Your task to perform on an android device: Go to notification settings Image 0: 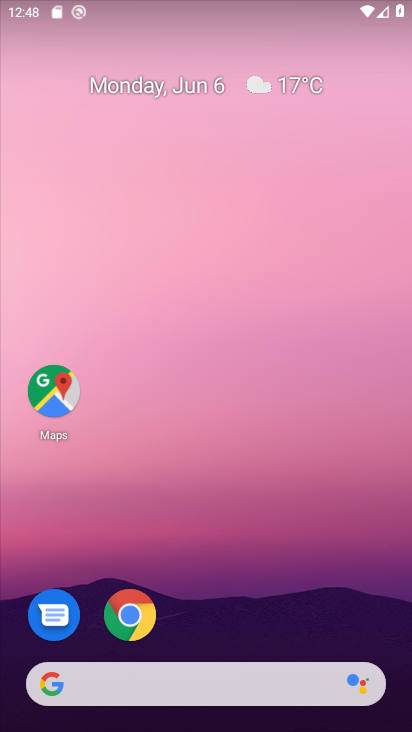
Step 0: drag from (293, 579) to (396, 27)
Your task to perform on an android device: Go to notification settings Image 1: 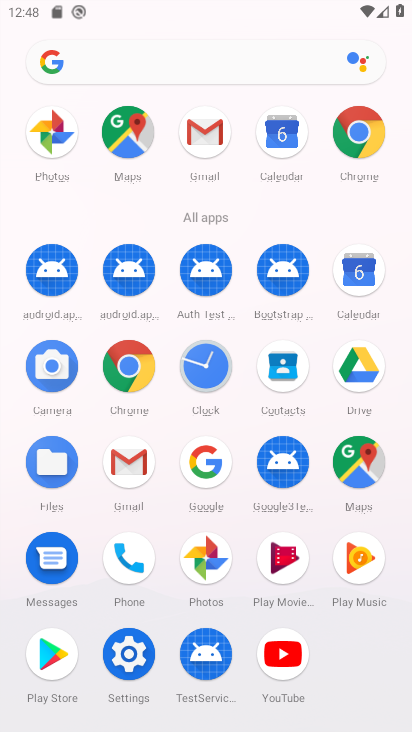
Step 1: click (119, 652)
Your task to perform on an android device: Go to notification settings Image 2: 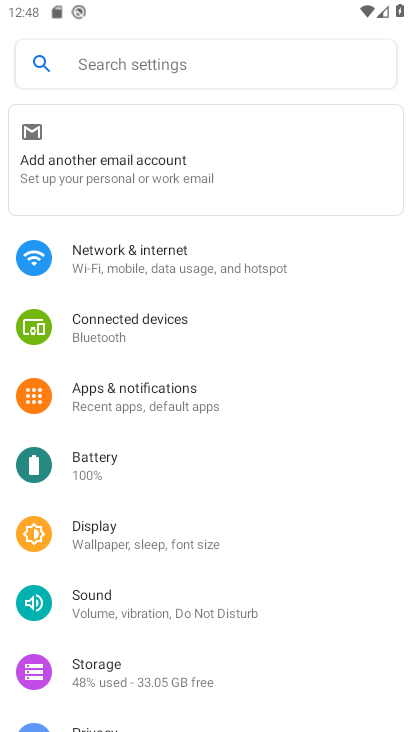
Step 2: click (143, 384)
Your task to perform on an android device: Go to notification settings Image 3: 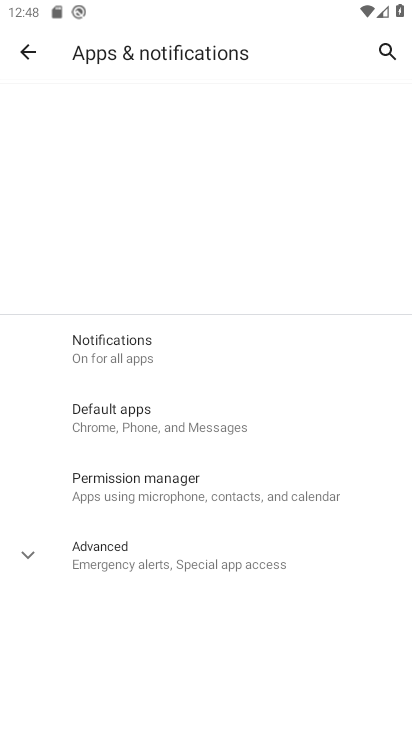
Step 3: click (182, 344)
Your task to perform on an android device: Go to notification settings Image 4: 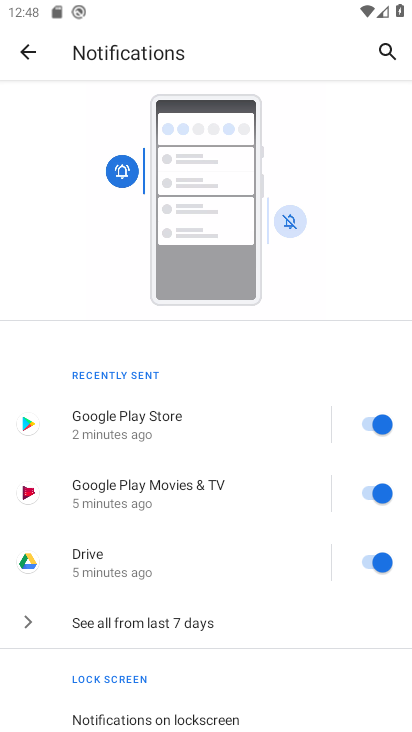
Step 4: task complete